Your task to perform on an android device: Go to notification settings Image 0: 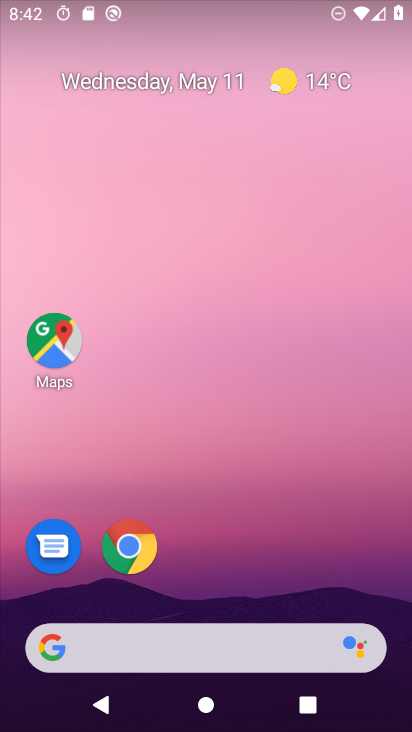
Step 0: drag from (225, 652) to (156, 246)
Your task to perform on an android device: Go to notification settings Image 1: 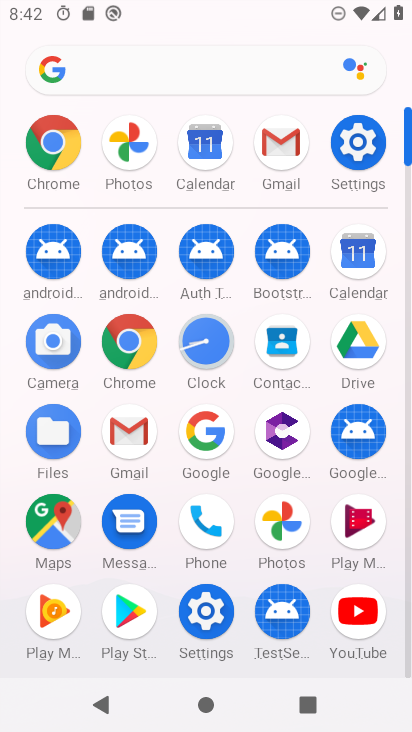
Step 1: click (204, 608)
Your task to perform on an android device: Go to notification settings Image 2: 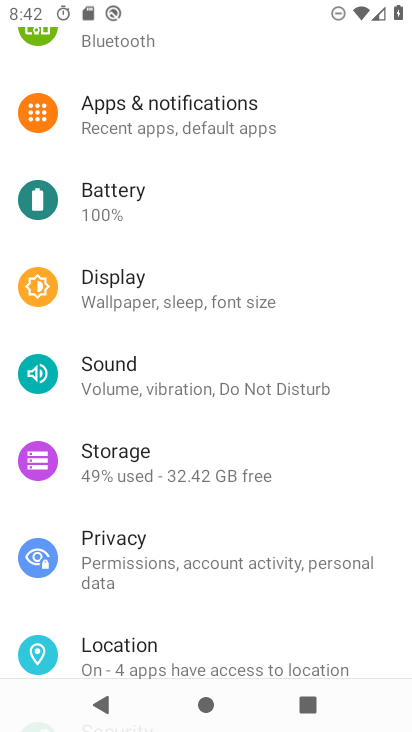
Step 2: click (142, 125)
Your task to perform on an android device: Go to notification settings Image 3: 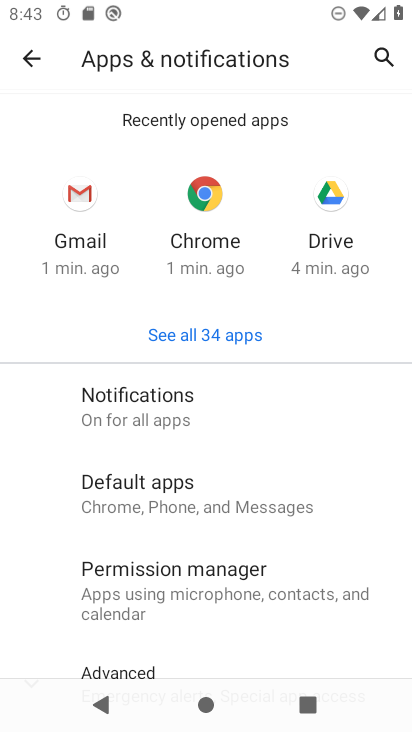
Step 3: task complete